Your task to perform on an android device: Open Chrome and go to the settings page Image 0: 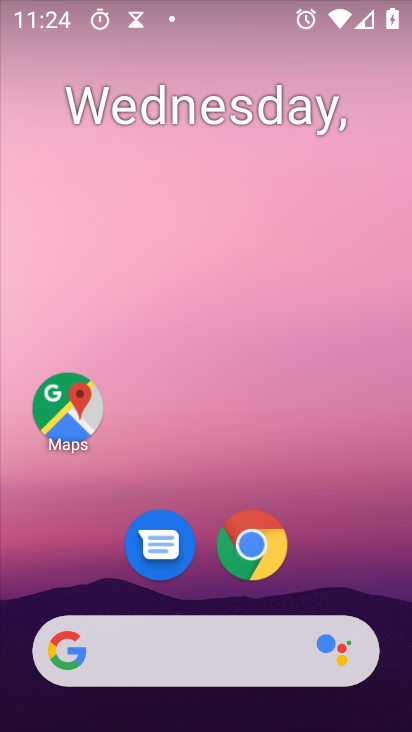
Step 0: press home button
Your task to perform on an android device: Open Chrome and go to the settings page Image 1: 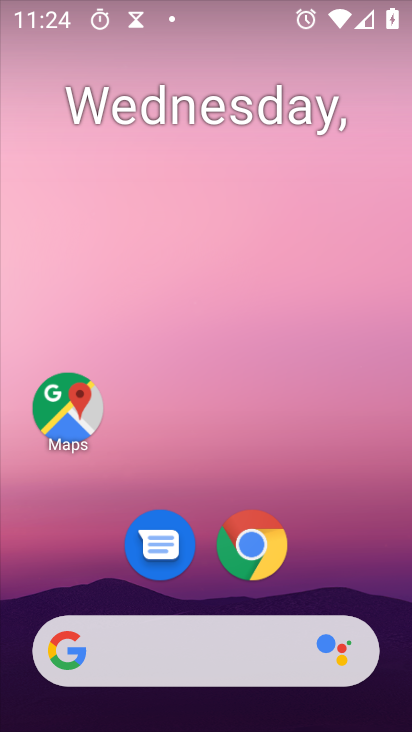
Step 1: click (276, 545)
Your task to perform on an android device: Open Chrome and go to the settings page Image 2: 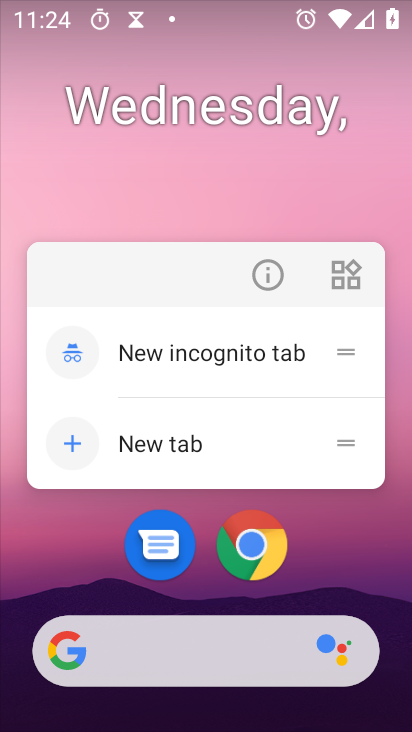
Step 2: click (258, 550)
Your task to perform on an android device: Open Chrome and go to the settings page Image 3: 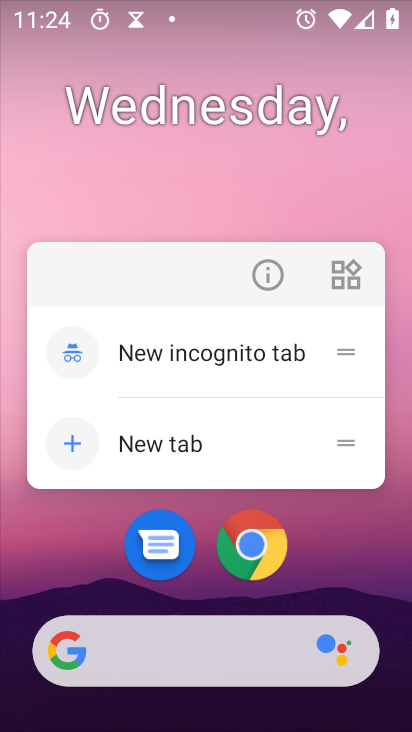
Step 3: click (249, 556)
Your task to perform on an android device: Open Chrome and go to the settings page Image 4: 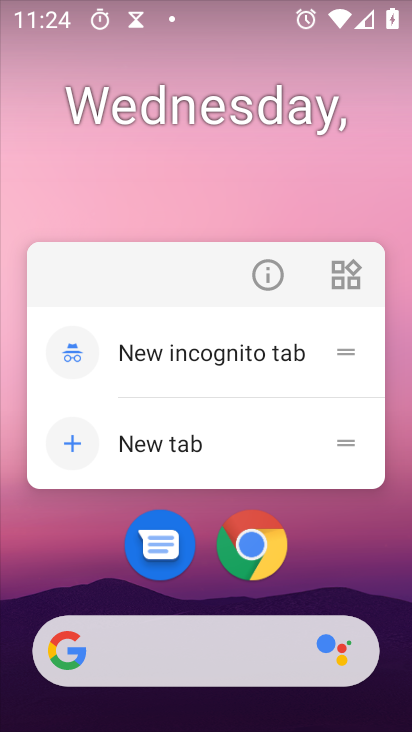
Step 4: click (249, 547)
Your task to perform on an android device: Open Chrome and go to the settings page Image 5: 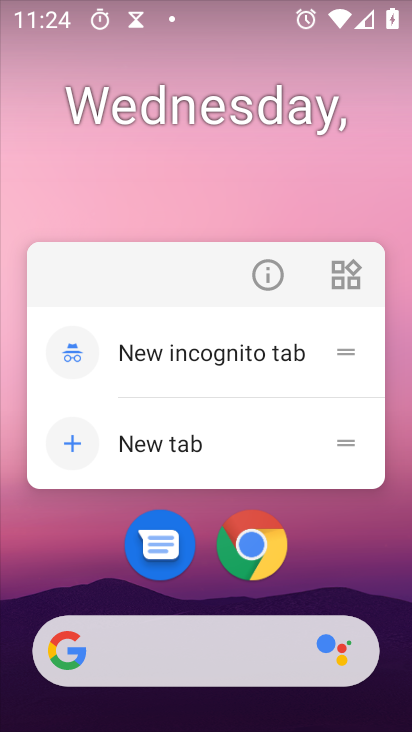
Step 5: click (258, 554)
Your task to perform on an android device: Open Chrome and go to the settings page Image 6: 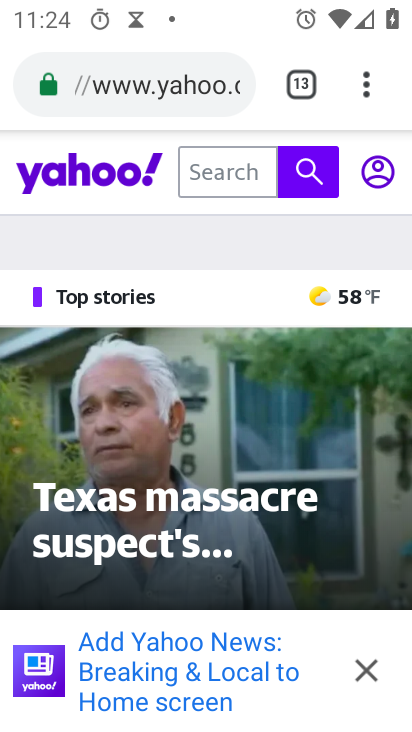
Step 6: task complete